Your task to perform on an android device: turn off notifications in google photos Image 0: 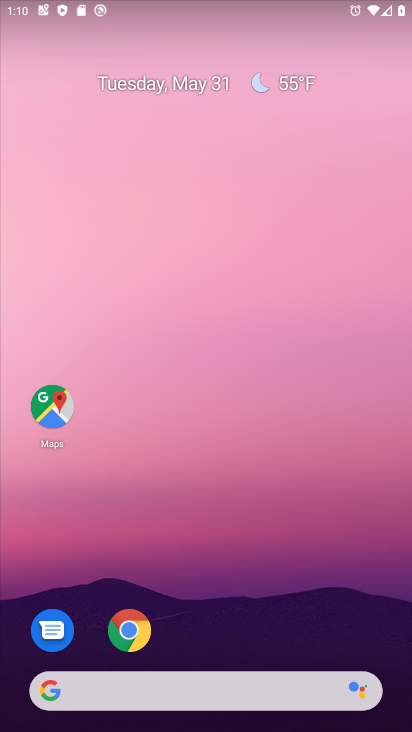
Step 0: drag from (271, 609) to (222, 241)
Your task to perform on an android device: turn off notifications in google photos Image 1: 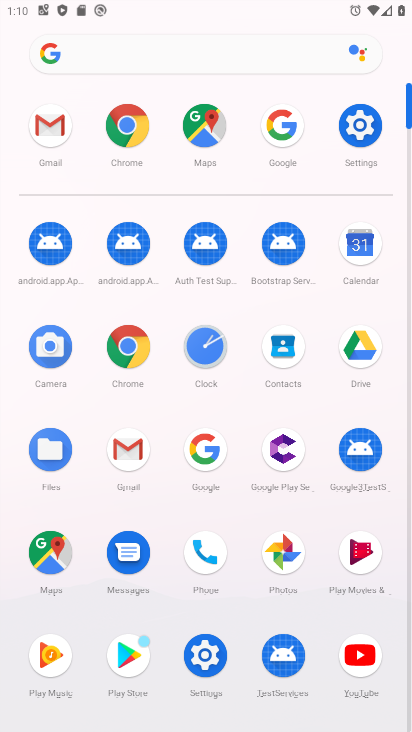
Step 1: click (295, 553)
Your task to perform on an android device: turn off notifications in google photos Image 2: 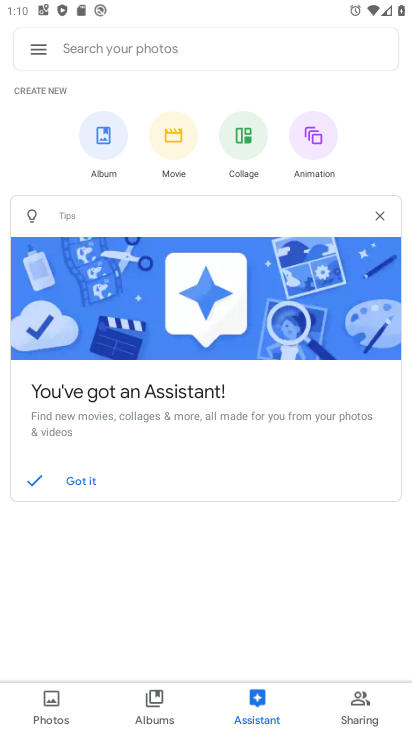
Step 2: click (40, 47)
Your task to perform on an android device: turn off notifications in google photos Image 3: 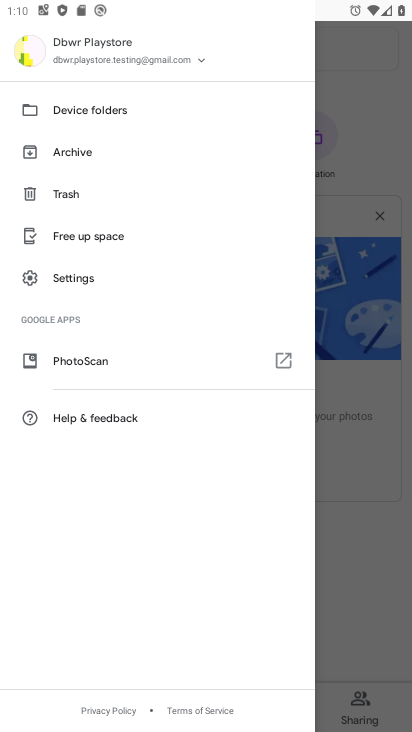
Step 3: click (80, 282)
Your task to perform on an android device: turn off notifications in google photos Image 4: 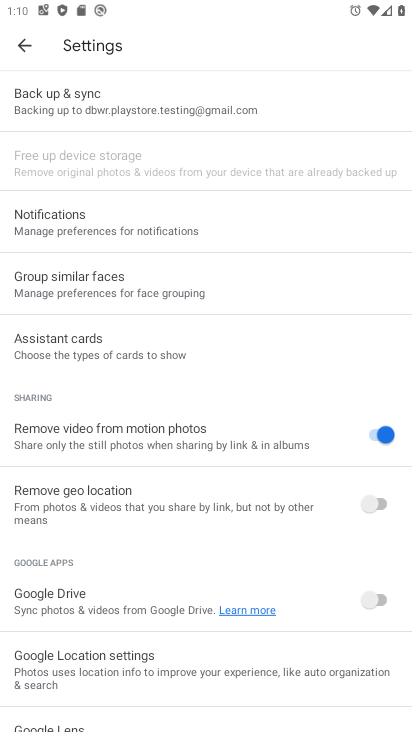
Step 4: click (103, 224)
Your task to perform on an android device: turn off notifications in google photos Image 5: 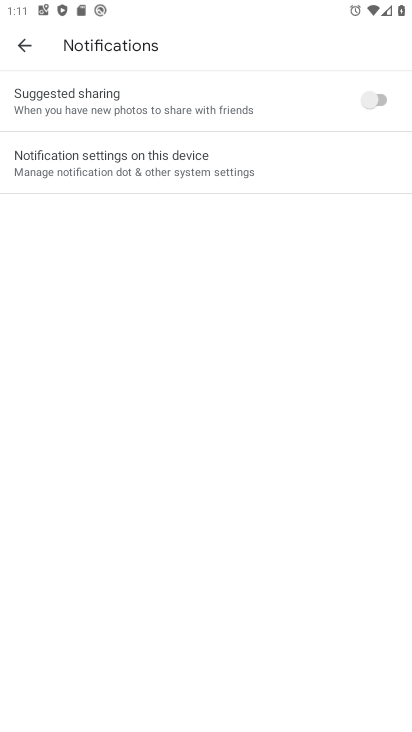
Step 5: click (128, 164)
Your task to perform on an android device: turn off notifications in google photos Image 6: 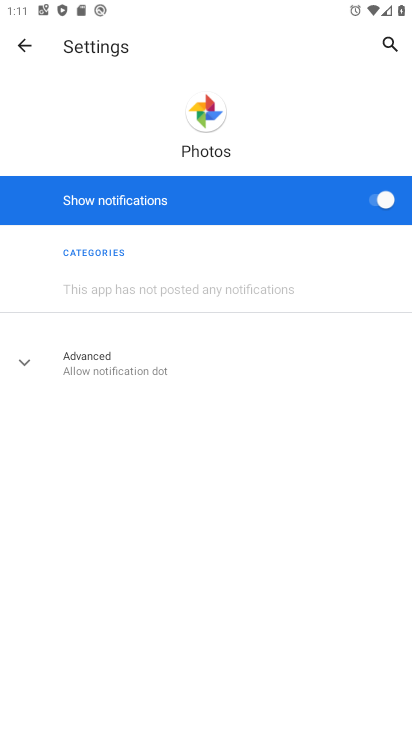
Step 6: click (379, 197)
Your task to perform on an android device: turn off notifications in google photos Image 7: 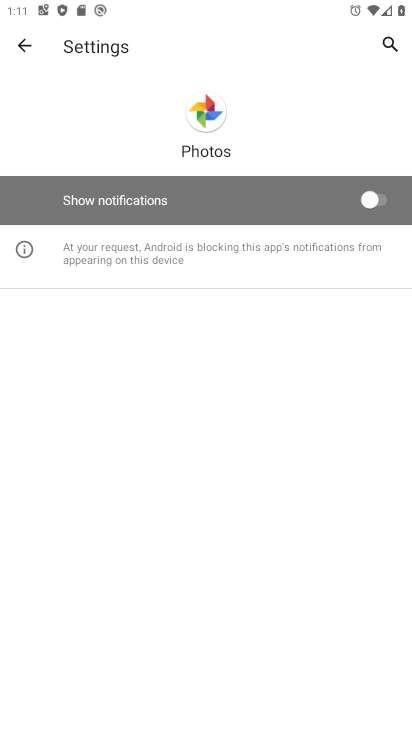
Step 7: task complete